Your task to perform on an android device: What is the news today? Image 0: 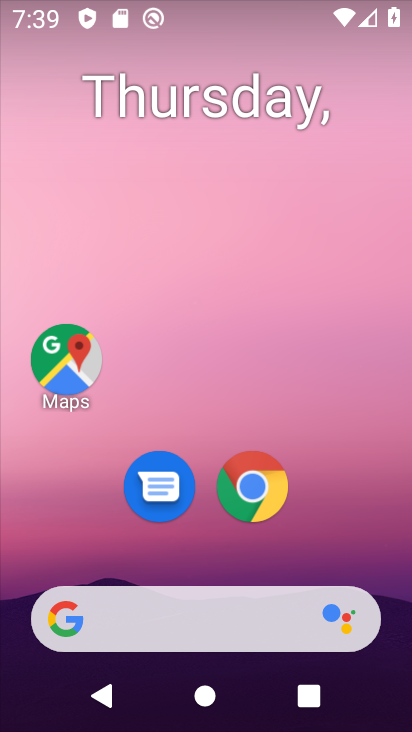
Step 0: drag from (225, 563) to (284, 141)
Your task to perform on an android device: What is the news today? Image 1: 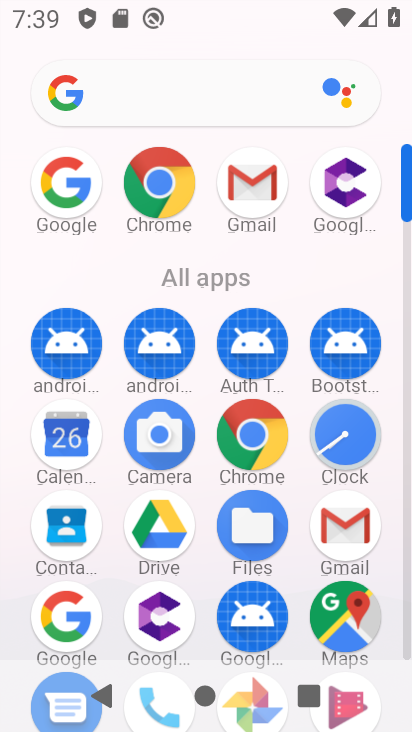
Step 1: drag from (264, 448) to (283, 212)
Your task to perform on an android device: What is the news today? Image 2: 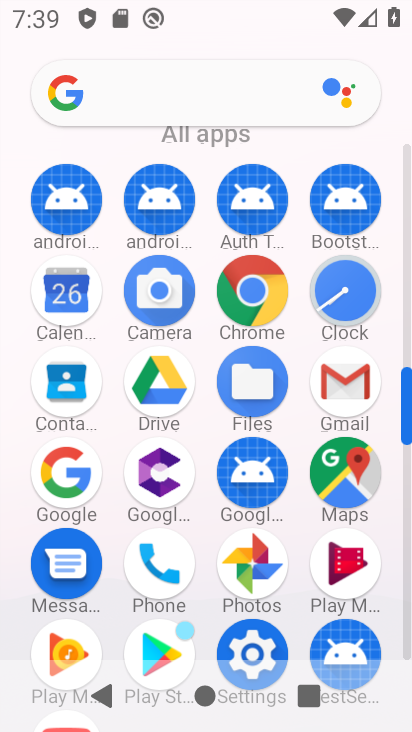
Step 2: click (64, 476)
Your task to perform on an android device: What is the news today? Image 3: 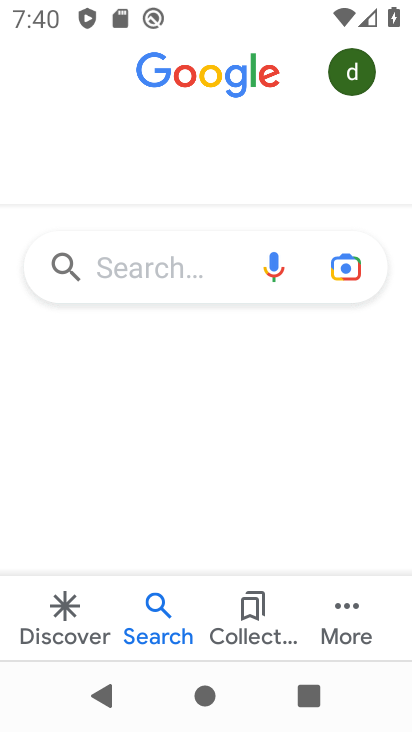
Step 3: click (171, 262)
Your task to perform on an android device: What is the news today? Image 4: 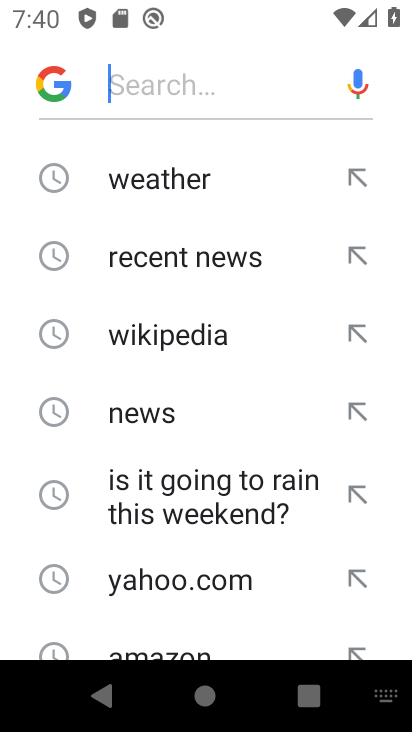
Step 4: click (218, 262)
Your task to perform on an android device: What is the news today? Image 5: 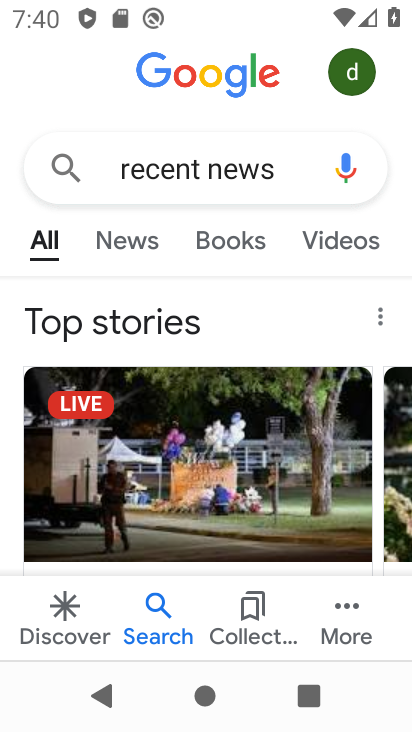
Step 5: click (133, 243)
Your task to perform on an android device: What is the news today? Image 6: 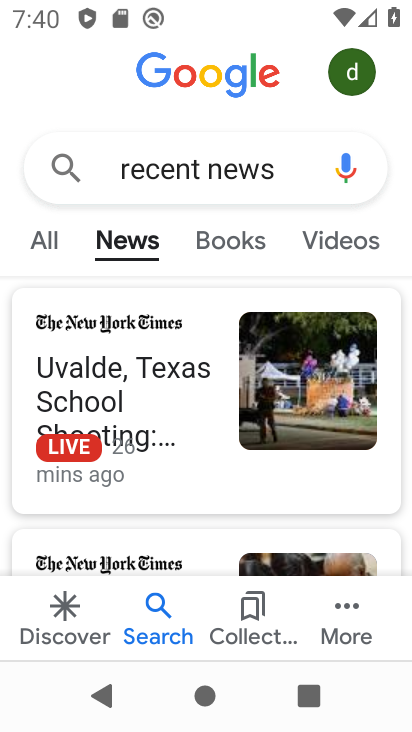
Step 6: task complete